Your task to perform on an android device: How much does a 2 bedroom apartment rent for in Boston? Image 0: 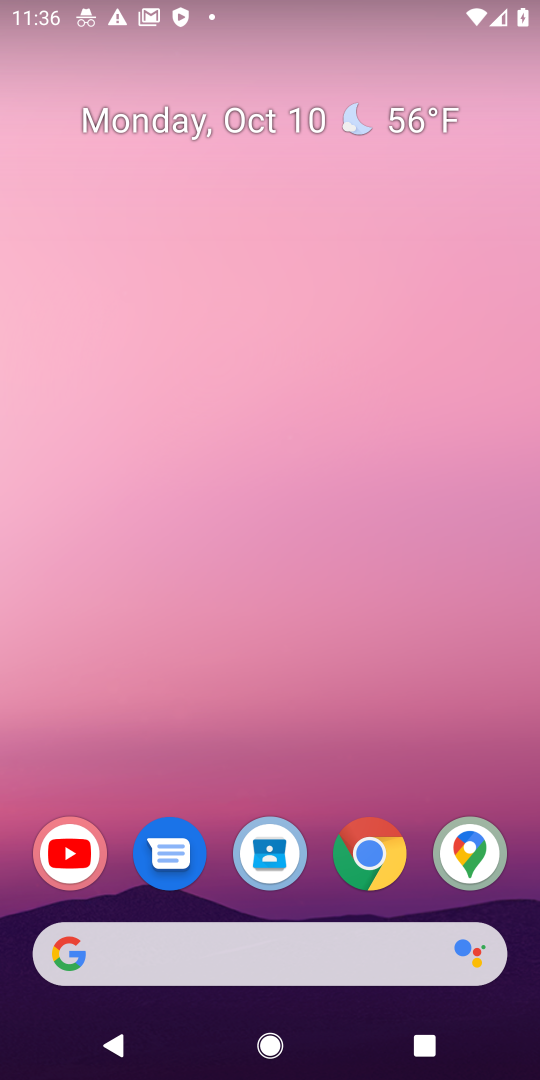
Step 0: press home button
Your task to perform on an android device: How much does a 2 bedroom apartment rent for in Boston? Image 1: 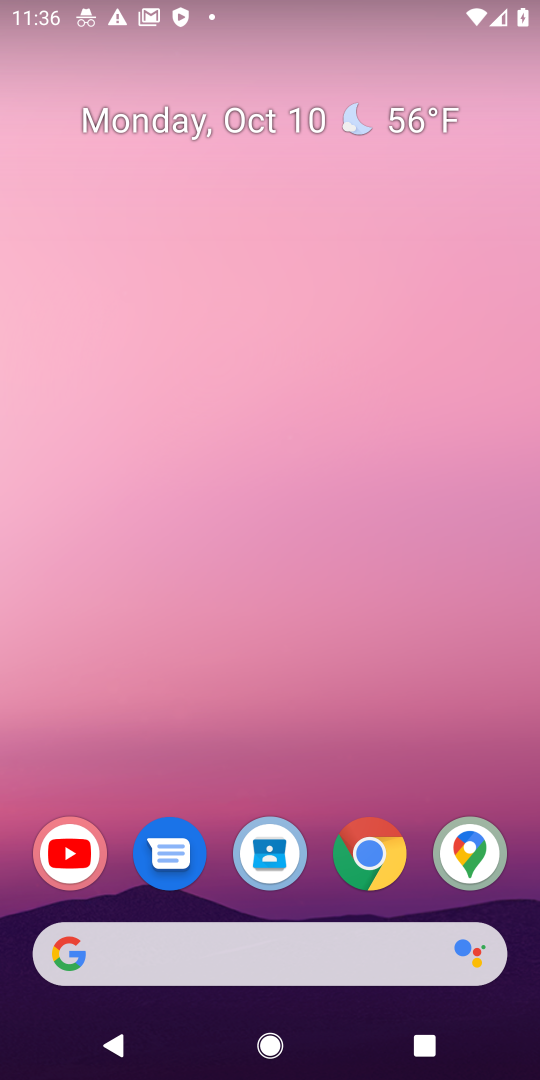
Step 1: click (210, 967)
Your task to perform on an android device: How much does a 2 bedroom apartment rent for in Boston? Image 2: 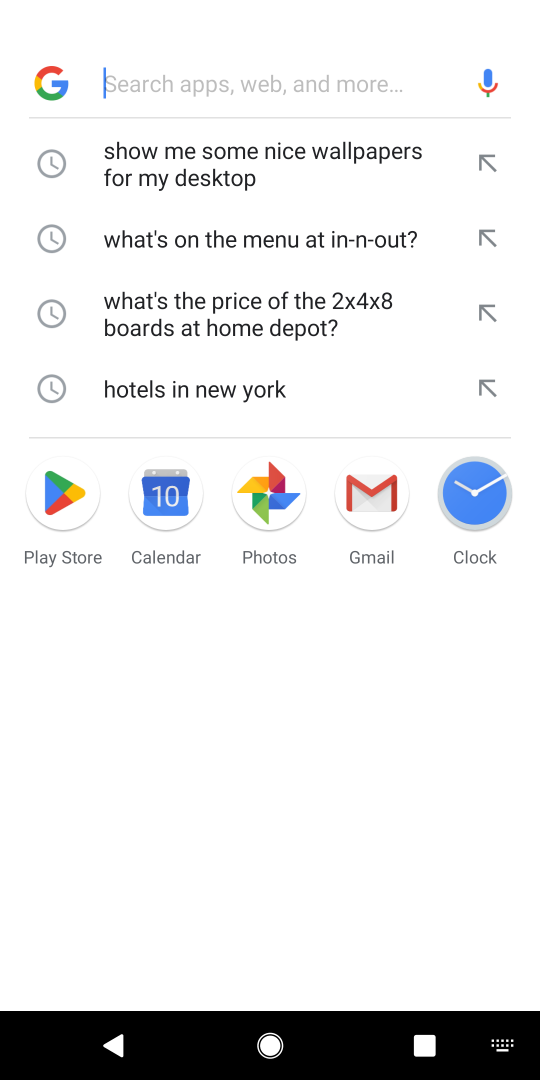
Step 2: type "2 bedroom apartment rent for in Boston"
Your task to perform on an android device: How much does a 2 bedroom apartment rent for in Boston? Image 3: 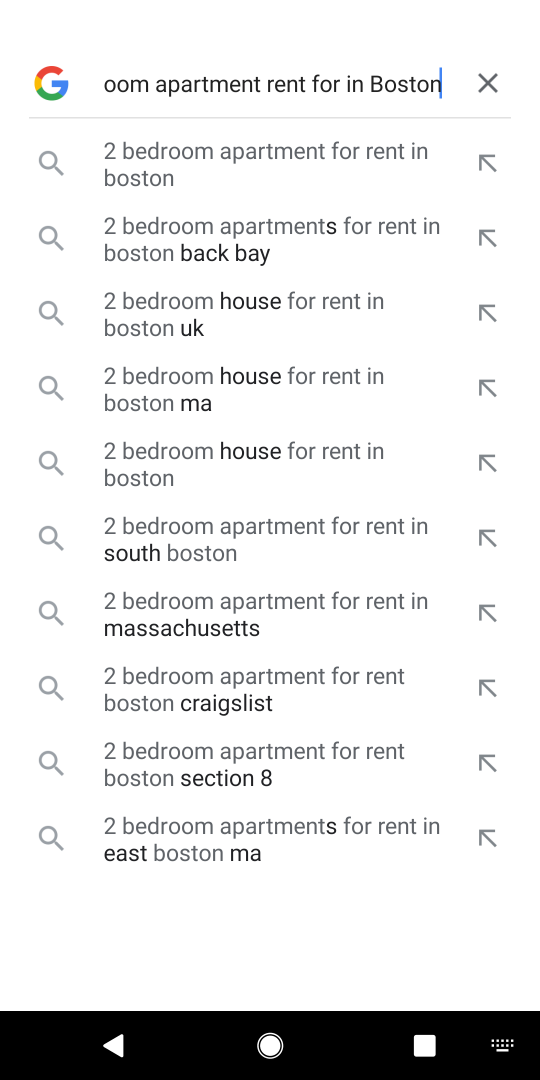
Step 3: press enter
Your task to perform on an android device: How much does a 2 bedroom apartment rent for in Boston? Image 4: 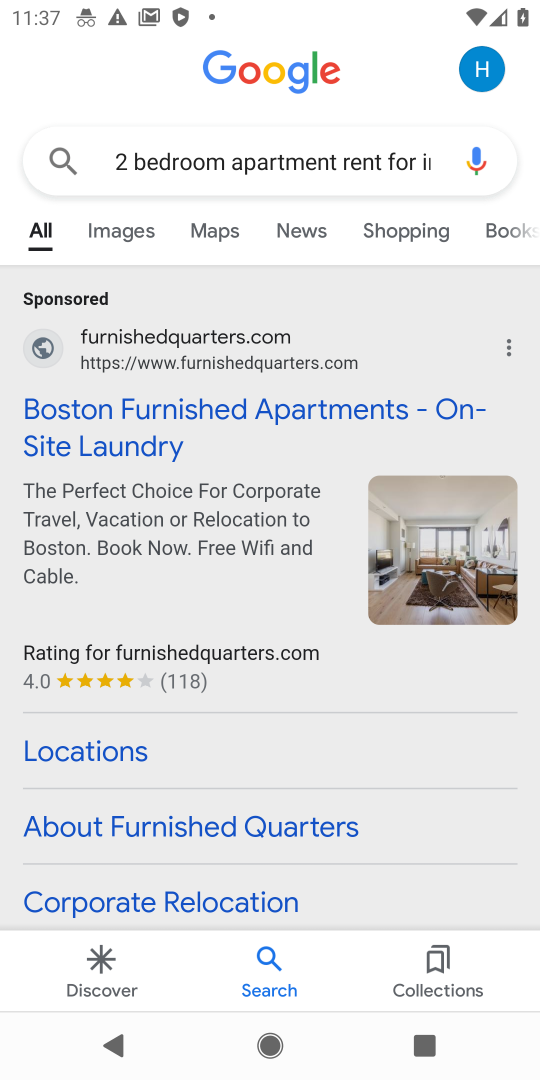
Step 4: drag from (299, 709) to (302, 522)
Your task to perform on an android device: How much does a 2 bedroom apartment rent for in Boston? Image 5: 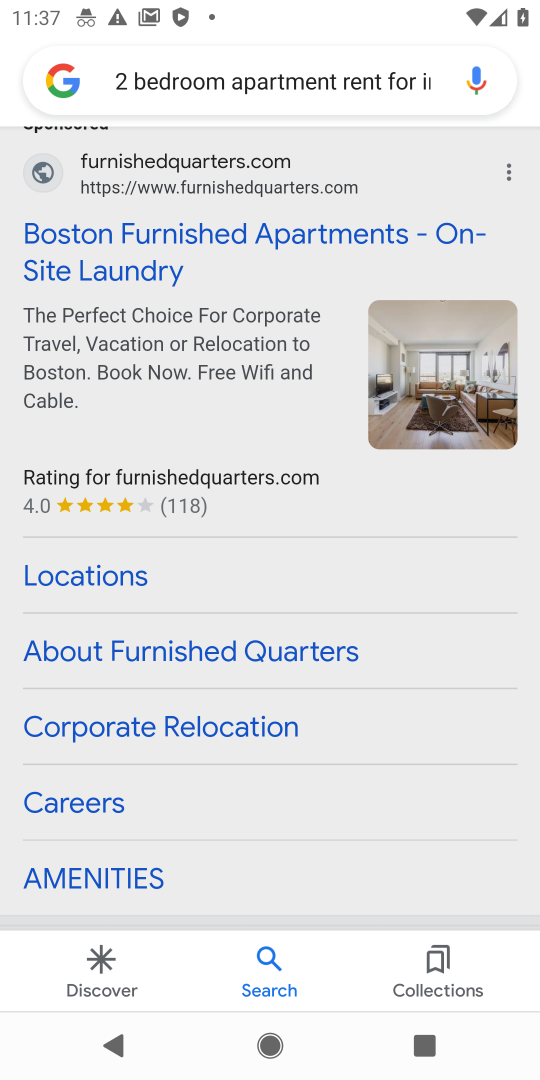
Step 5: drag from (321, 747) to (341, 480)
Your task to perform on an android device: How much does a 2 bedroom apartment rent for in Boston? Image 6: 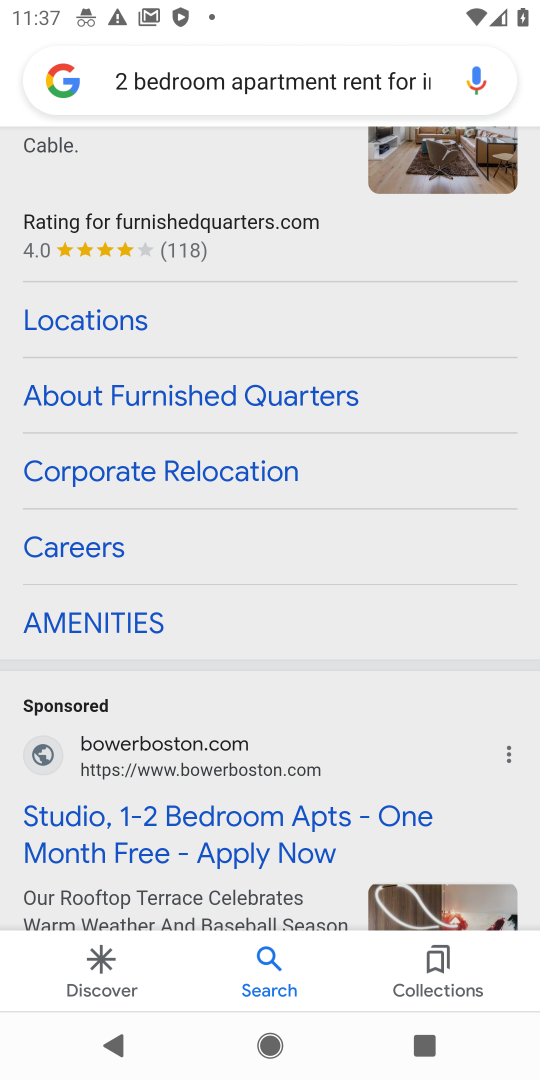
Step 6: drag from (321, 734) to (352, 512)
Your task to perform on an android device: How much does a 2 bedroom apartment rent for in Boston? Image 7: 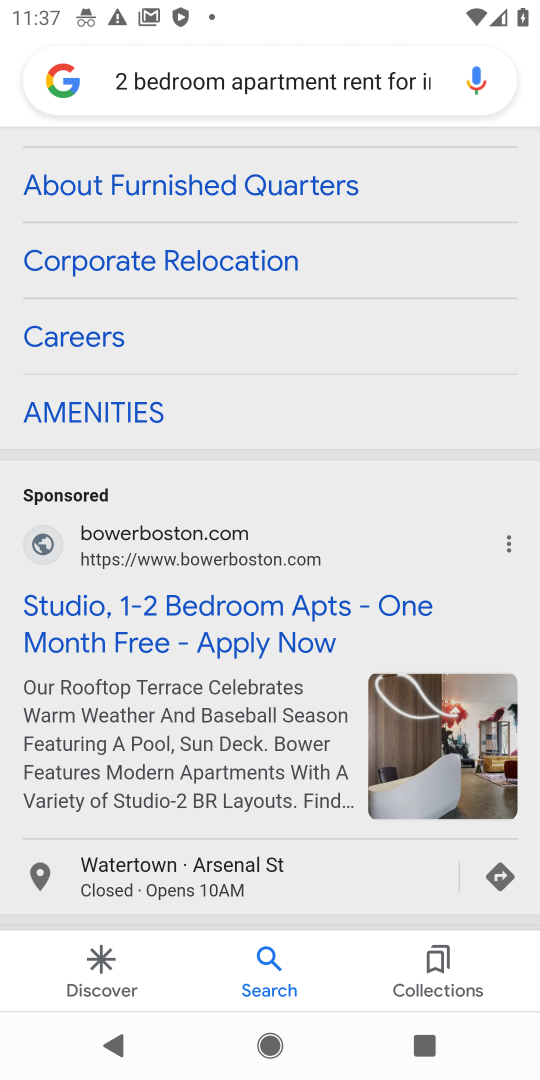
Step 7: click (240, 628)
Your task to perform on an android device: How much does a 2 bedroom apartment rent for in Boston? Image 8: 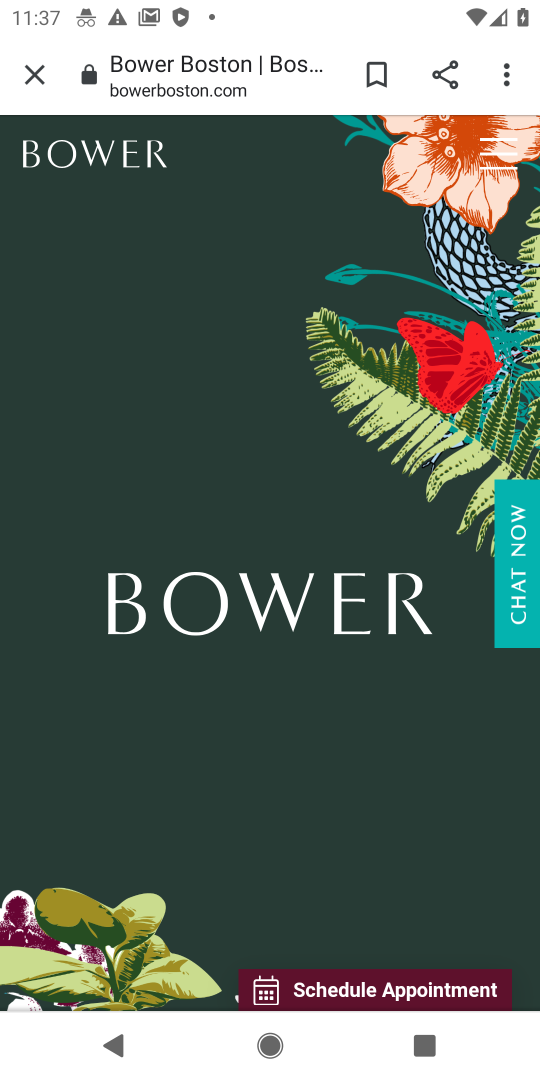
Step 8: task complete